Your task to perform on an android device: uninstall "Spotify" Image 0: 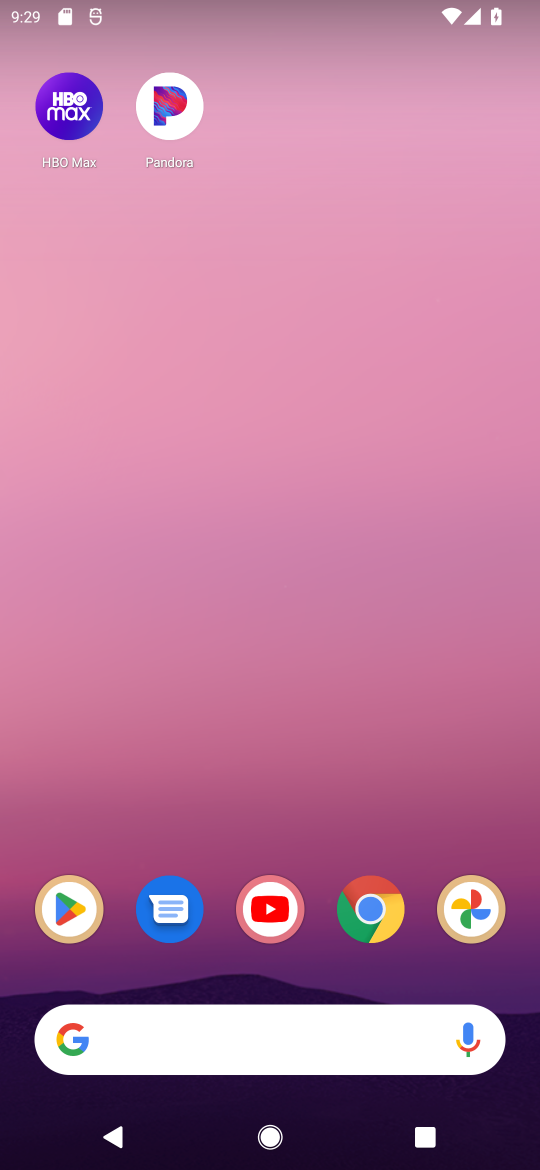
Step 0: click (83, 928)
Your task to perform on an android device: uninstall "Spotify" Image 1: 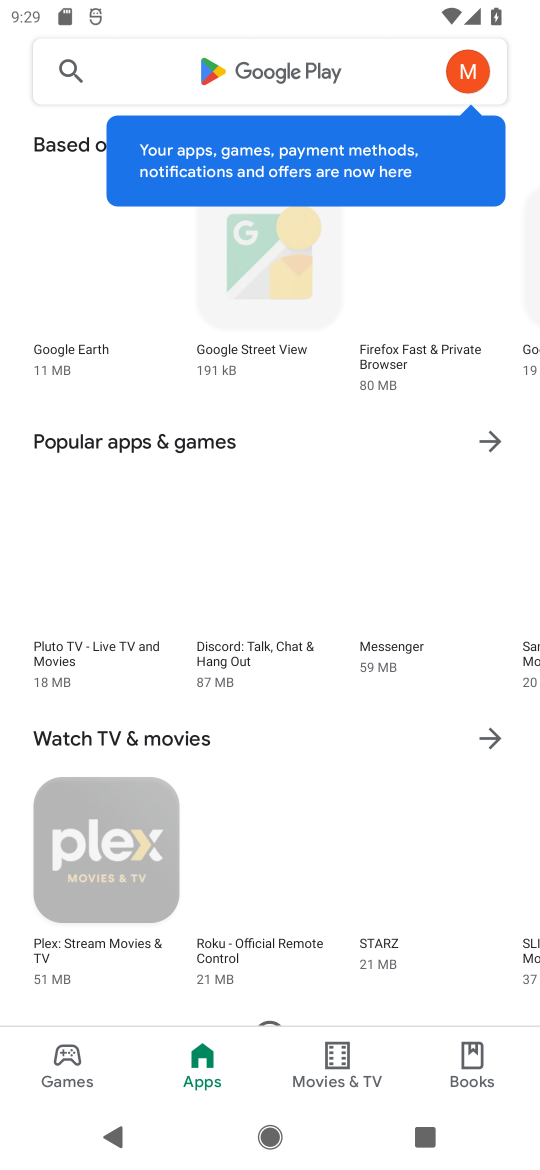
Step 1: click (278, 75)
Your task to perform on an android device: uninstall "Spotify" Image 2: 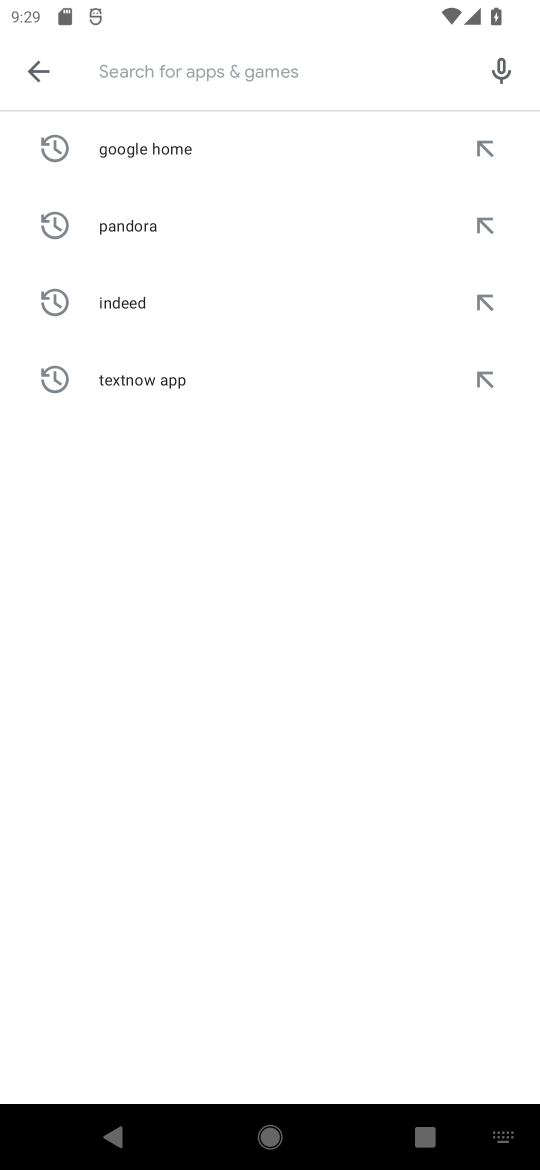
Step 2: type "spotify"
Your task to perform on an android device: uninstall "Spotify" Image 3: 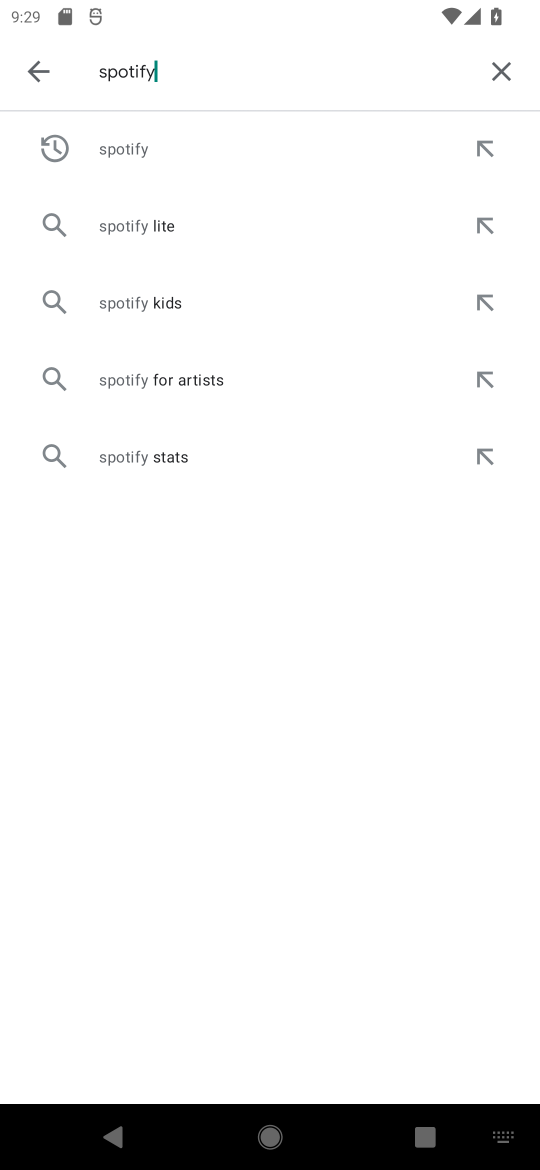
Step 3: click (146, 144)
Your task to perform on an android device: uninstall "Spotify" Image 4: 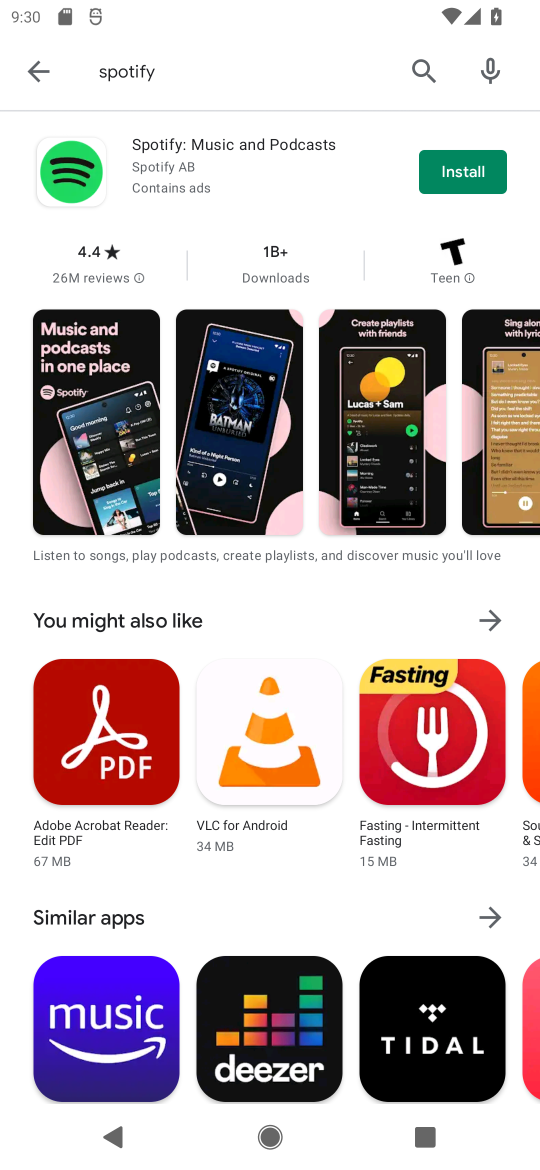
Step 4: task complete